Your task to perform on an android device: Open Google Chrome Image 0: 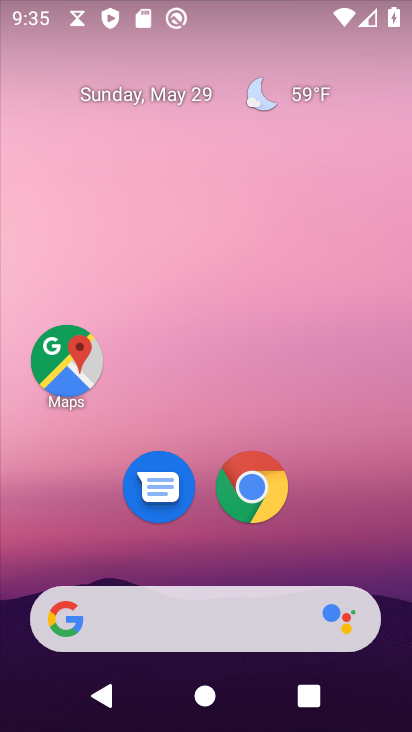
Step 0: click (254, 486)
Your task to perform on an android device: Open Google Chrome Image 1: 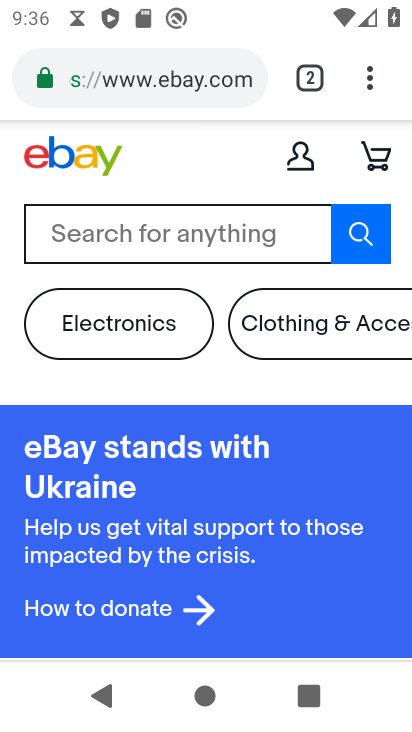
Step 1: task complete